Your task to perform on an android device: turn vacation reply on in the gmail app Image 0: 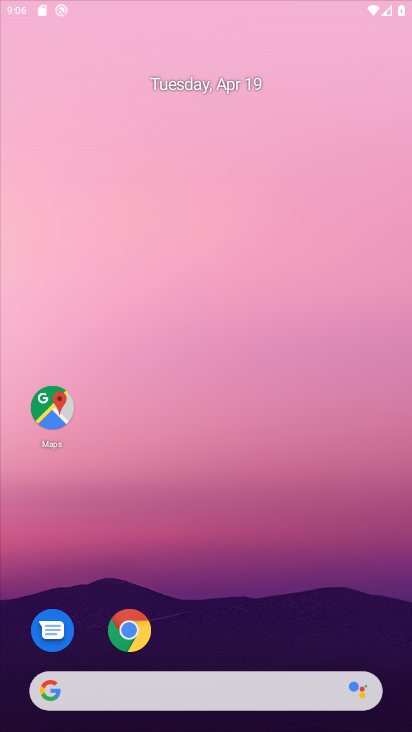
Step 0: drag from (281, 646) to (305, 116)
Your task to perform on an android device: turn vacation reply on in the gmail app Image 1: 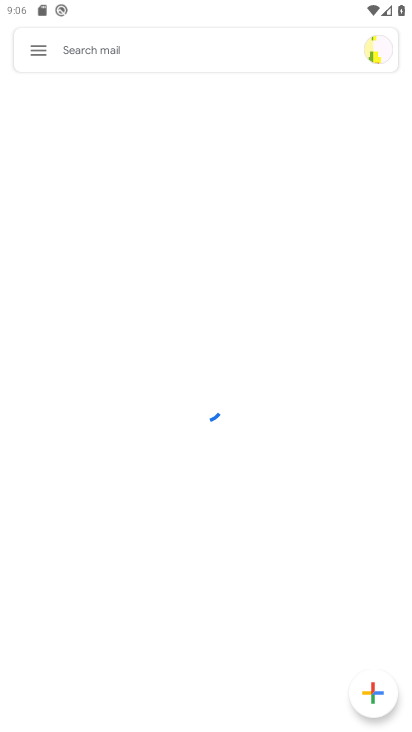
Step 1: press home button
Your task to perform on an android device: turn vacation reply on in the gmail app Image 2: 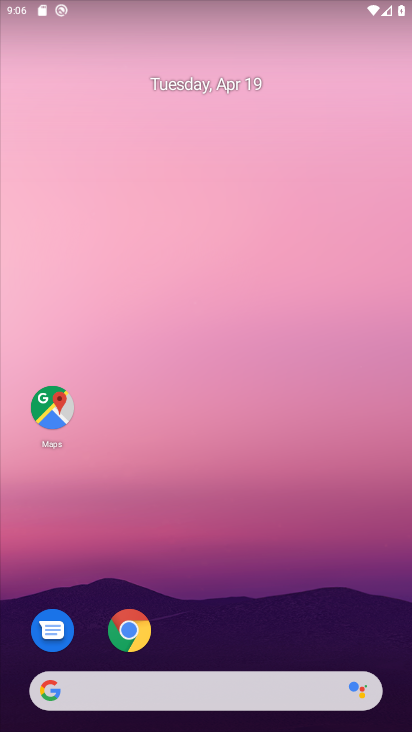
Step 2: drag from (274, 587) to (344, 78)
Your task to perform on an android device: turn vacation reply on in the gmail app Image 3: 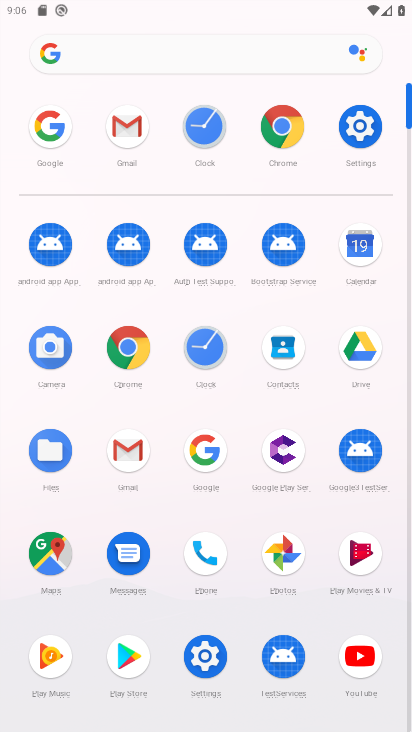
Step 3: click (139, 458)
Your task to perform on an android device: turn vacation reply on in the gmail app Image 4: 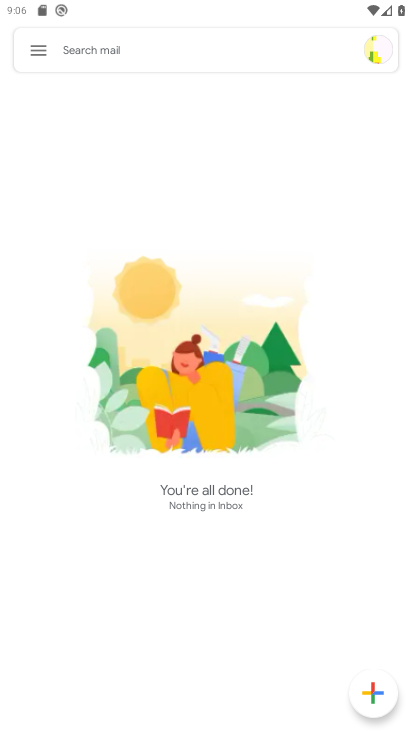
Step 4: click (32, 53)
Your task to perform on an android device: turn vacation reply on in the gmail app Image 5: 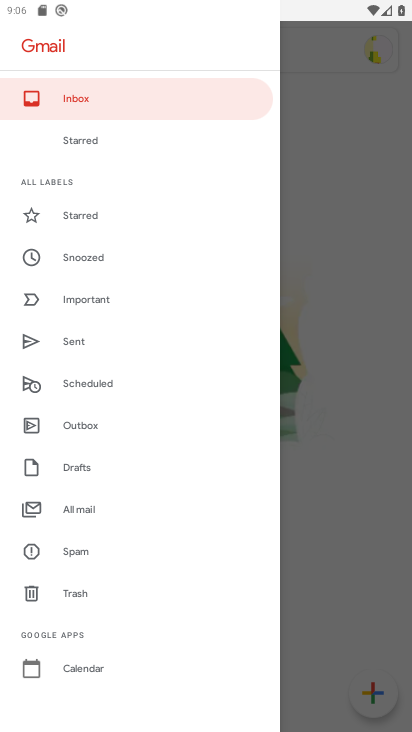
Step 5: drag from (132, 568) to (217, 51)
Your task to perform on an android device: turn vacation reply on in the gmail app Image 6: 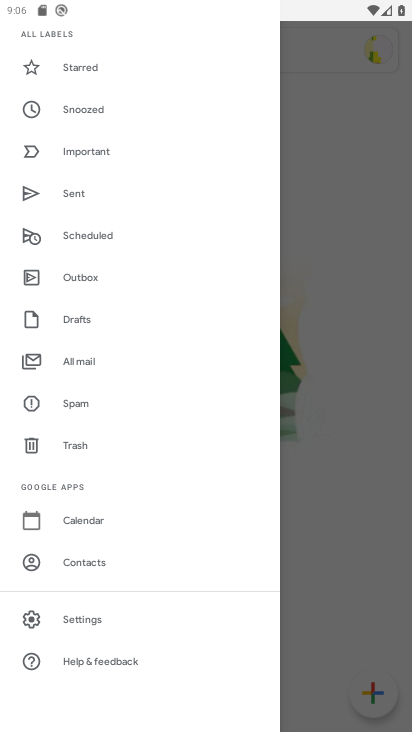
Step 6: click (104, 631)
Your task to perform on an android device: turn vacation reply on in the gmail app Image 7: 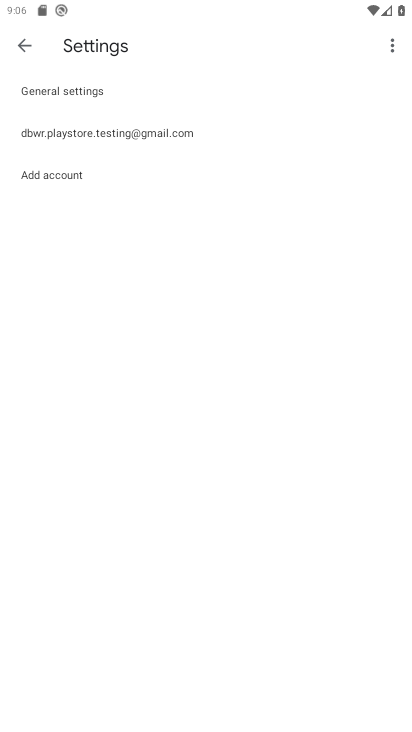
Step 7: click (149, 138)
Your task to perform on an android device: turn vacation reply on in the gmail app Image 8: 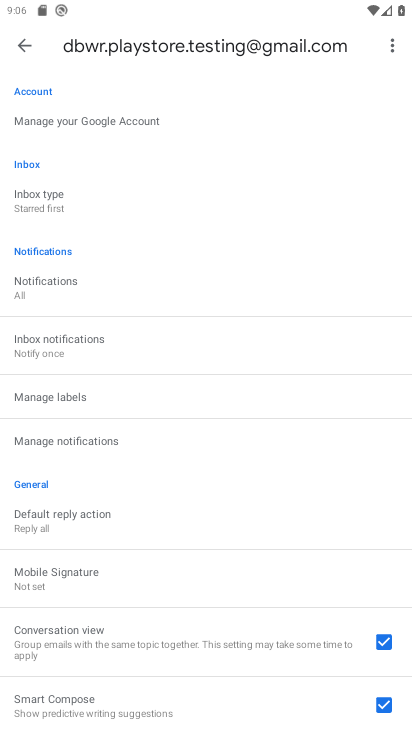
Step 8: drag from (134, 439) to (149, 271)
Your task to perform on an android device: turn vacation reply on in the gmail app Image 9: 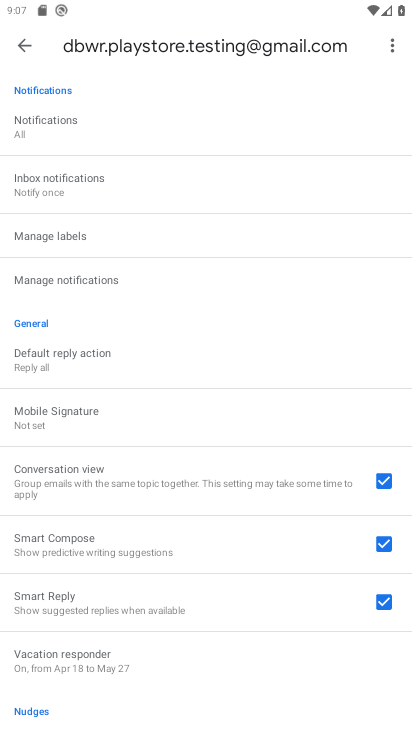
Step 9: click (225, 673)
Your task to perform on an android device: turn vacation reply on in the gmail app Image 10: 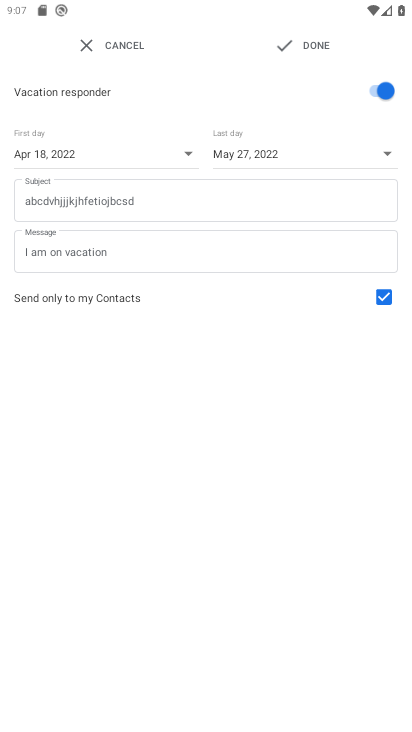
Step 10: task complete